Your task to perform on an android device: empty trash in the gmail app Image 0: 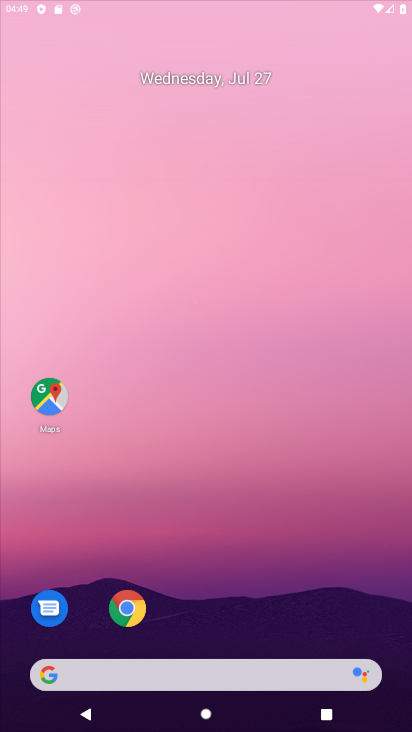
Step 0: press home button
Your task to perform on an android device: empty trash in the gmail app Image 1: 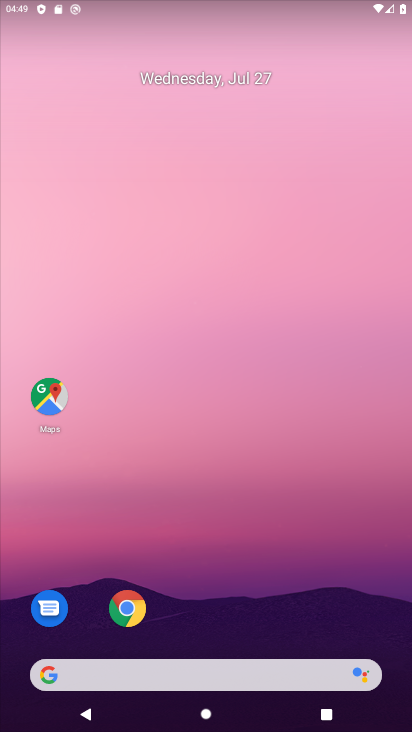
Step 1: drag from (201, 608) to (225, 219)
Your task to perform on an android device: empty trash in the gmail app Image 2: 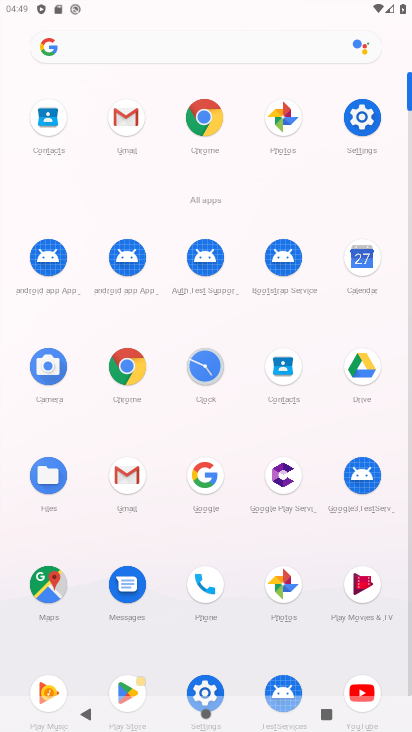
Step 2: click (132, 113)
Your task to perform on an android device: empty trash in the gmail app Image 3: 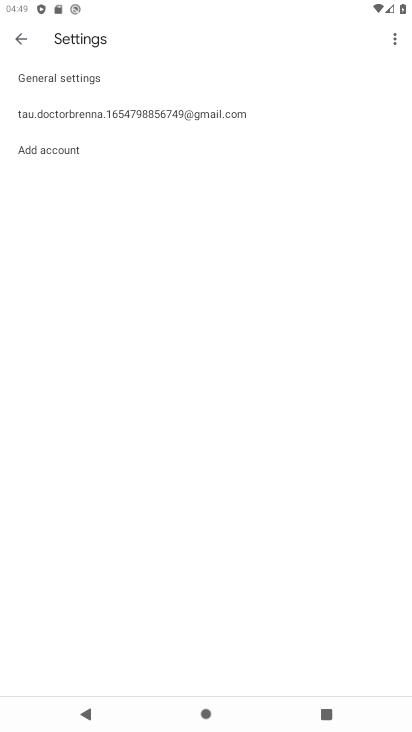
Step 3: click (16, 35)
Your task to perform on an android device: empty trash in the gmail app Image 4: 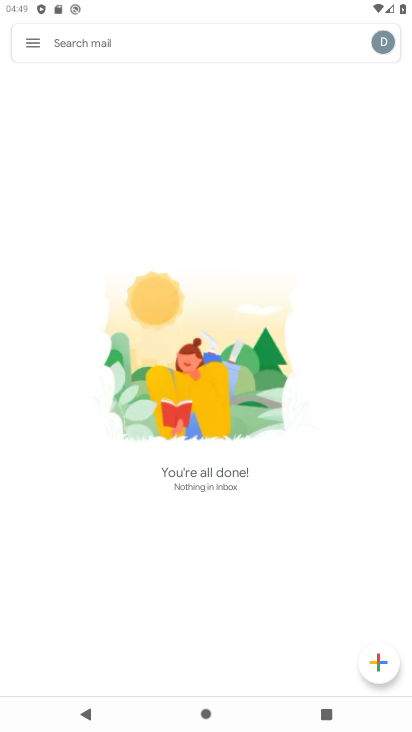
Step 4: click (36, 37)
Your task to perform on an android device: empty trash in the gmail app Image 5: 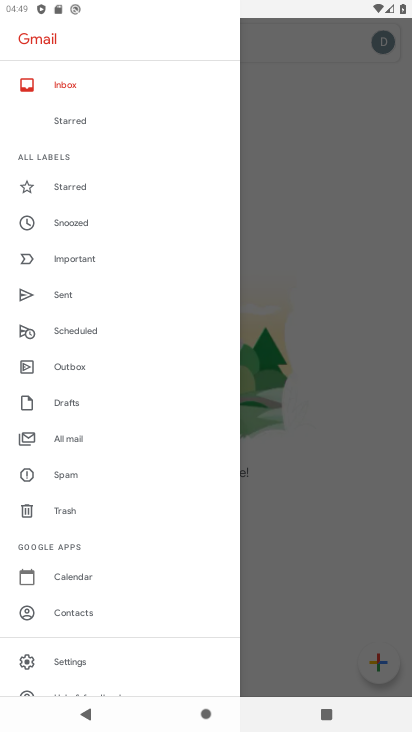
Step 5: click (64, 512)
Your task to perform on an android device: empty trash in the gmail app Image 6: 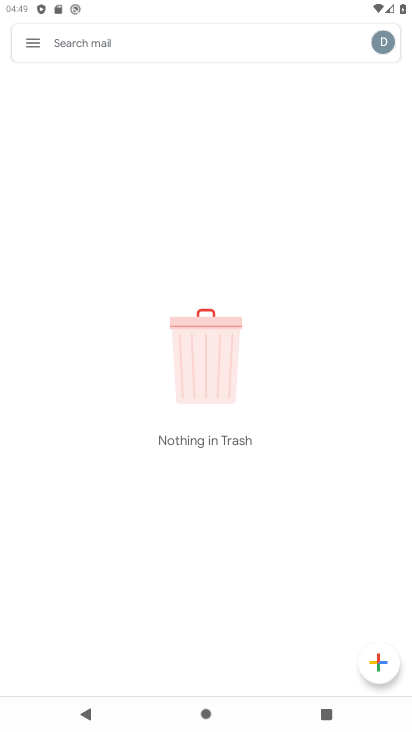
Step 6: task complete